Your task to perform on an android device: see creations saved in the google photos Image 0: 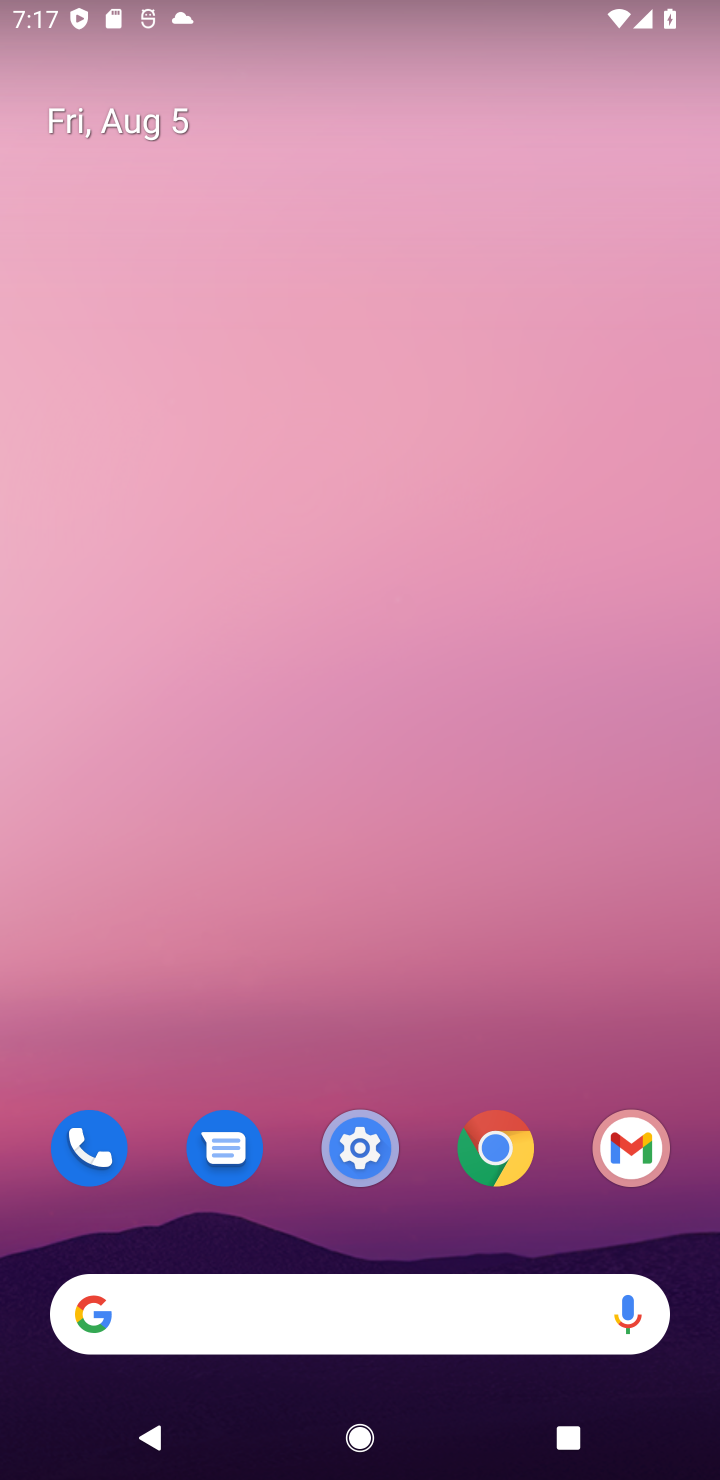
Step 0: drag from (558, 1250) to (509, 180)
Your task to perform on an android device: see creations saved in the google photos Image 1: 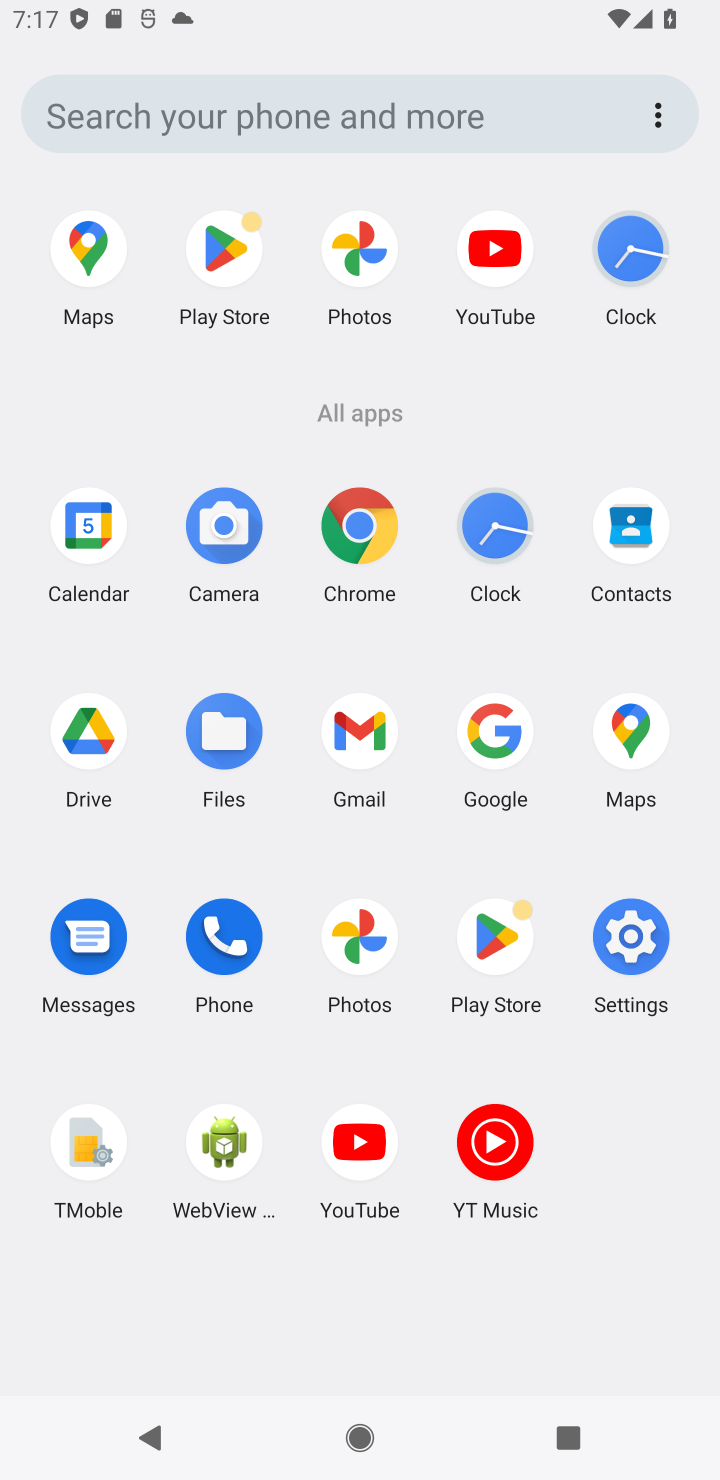
Step 1: click (329, 254)
Your task to perform on an android device: see creations saved in the google photos Image 2: 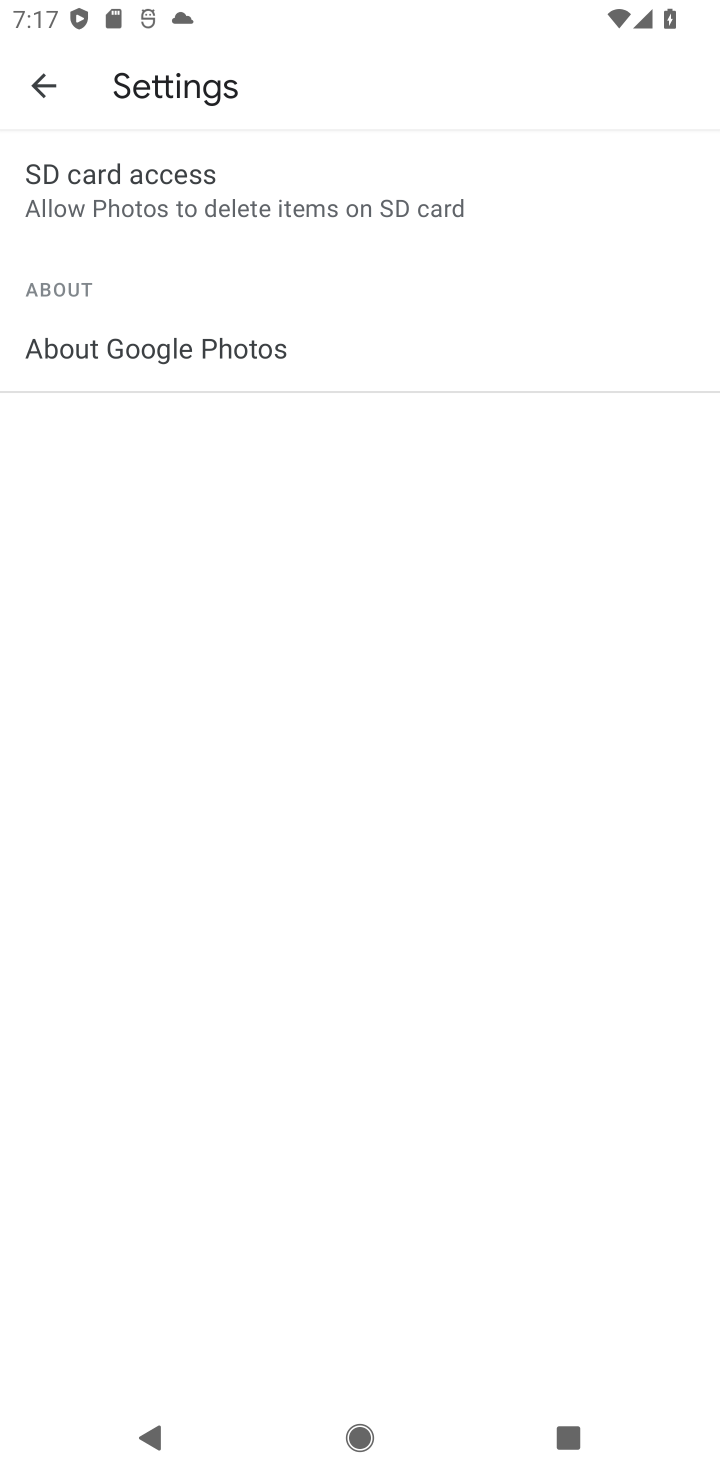
Step 2: click (48, 85)
Your task to perform on an android device: see creations saved in the google photos Image 3: 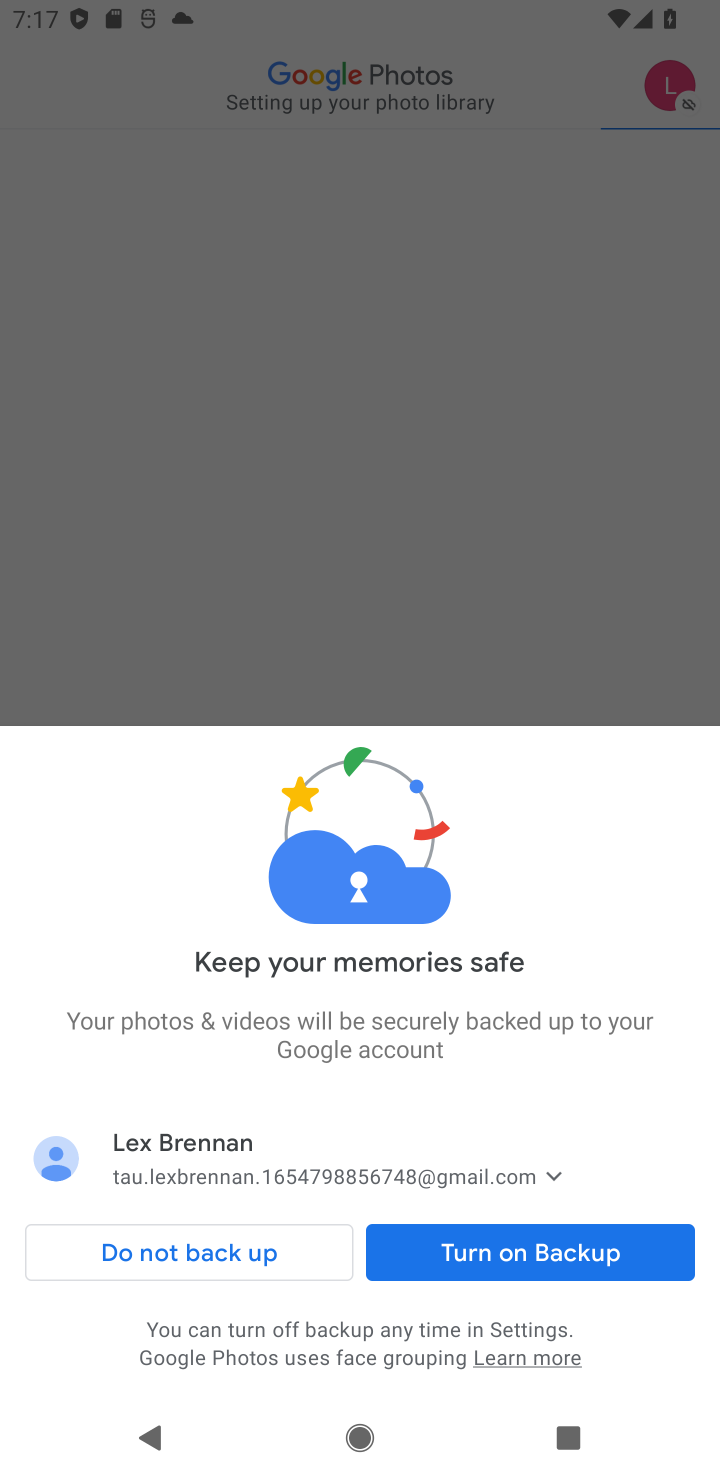
Step 3: click (125, 1269)
Your task to perform on an android device: see creations saved in the google photos Image 4: 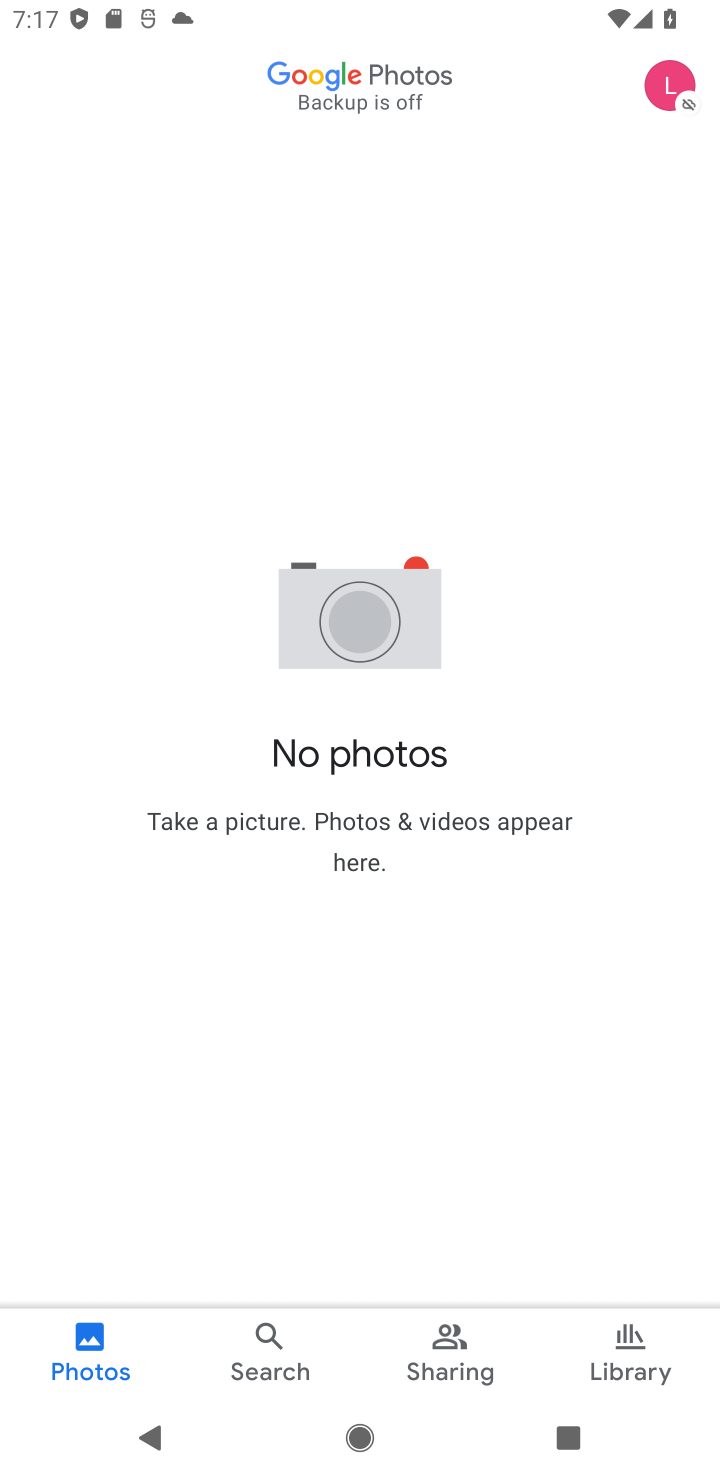
Step 4: click (666, 93)
Your task to perform on an android device: see creations saved in the google photos Image 5: 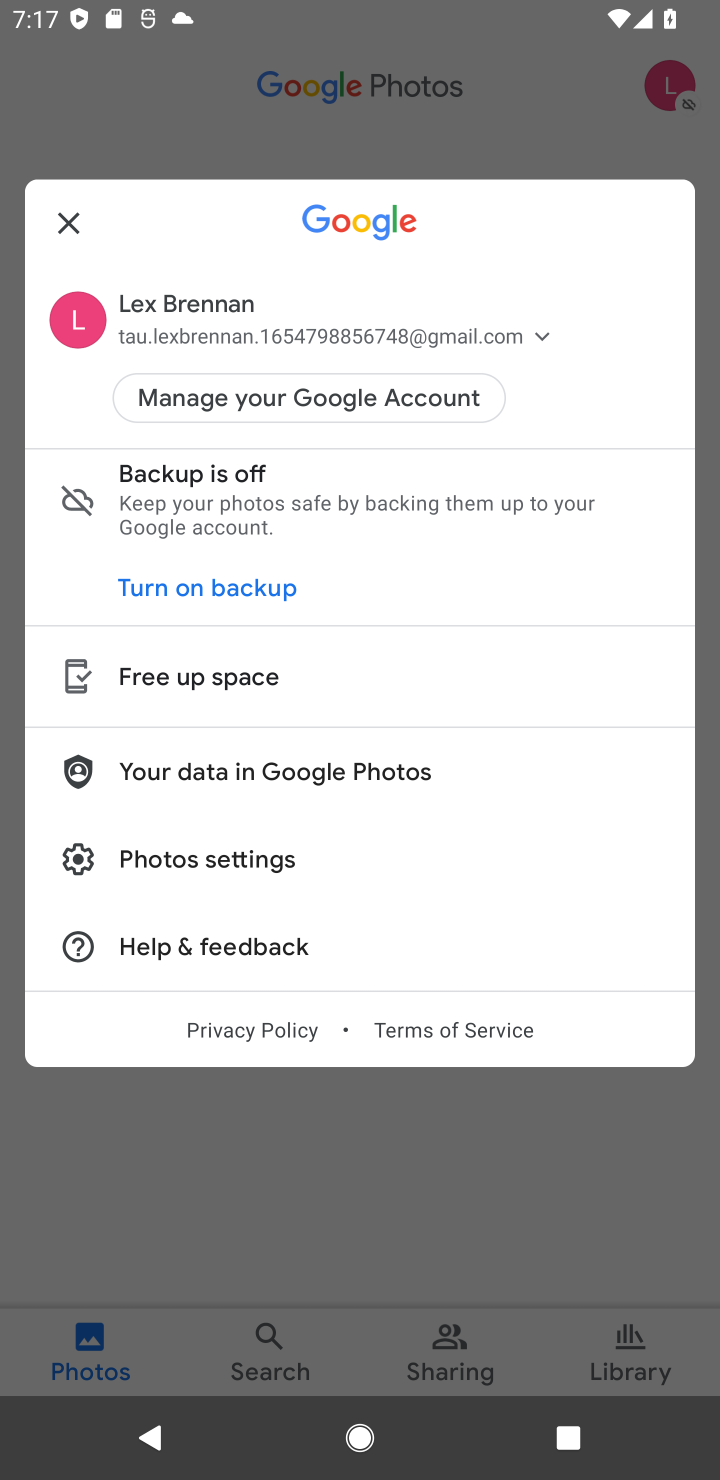
Step 5: task complete